Your task to perform on an android device: Open settings Image 0: 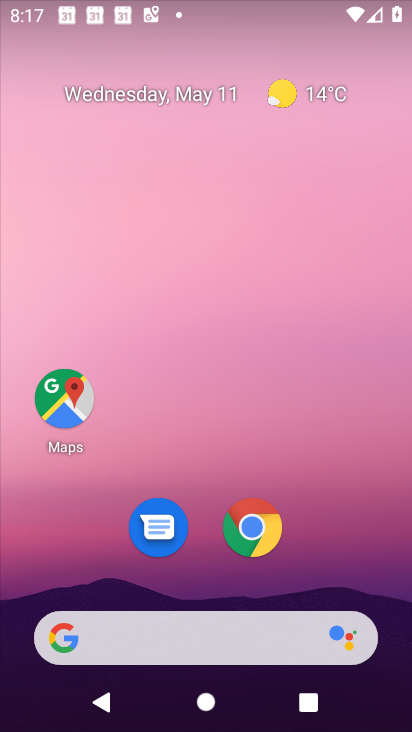
Step 0: drag from (190, 581) to (156, 94)
Your task to perform on an android device: Open settings Image 1: 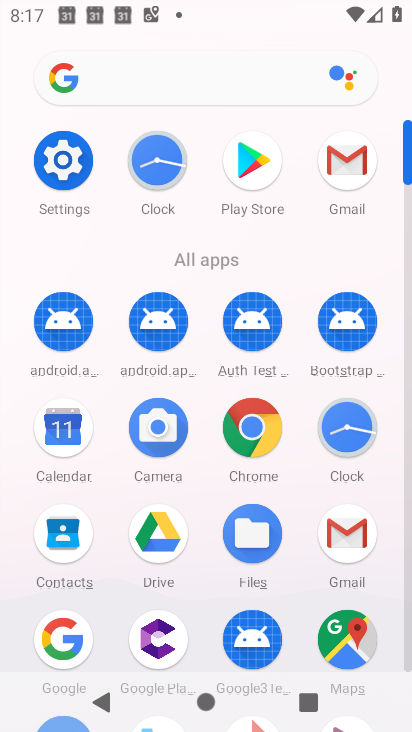
Step 1: click (74, 173)
Your task to perform on an android device: Open settings Image 2: 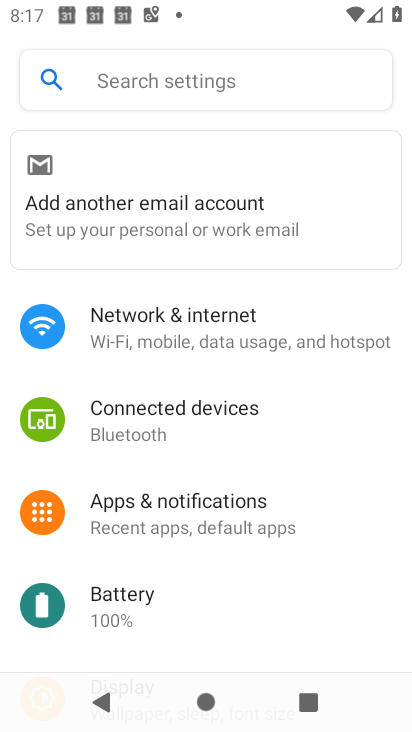
Step 2: task complete